Your task to perform on an android device: check the backup settings in the google photos Image 0: 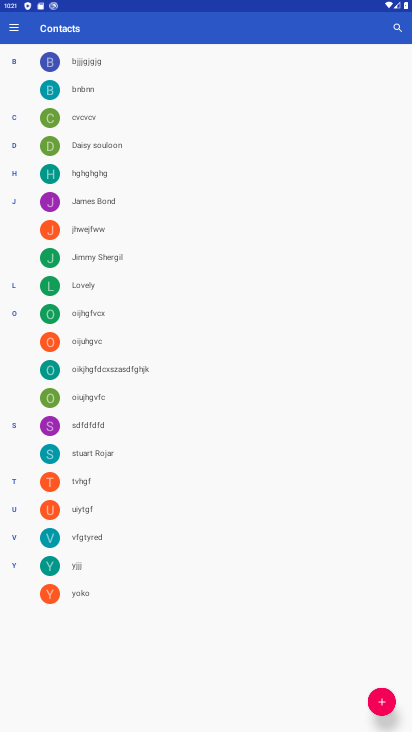
Step 0: press home button
Your task to perform on an android device: check the backup settings in the google photos Image 1: 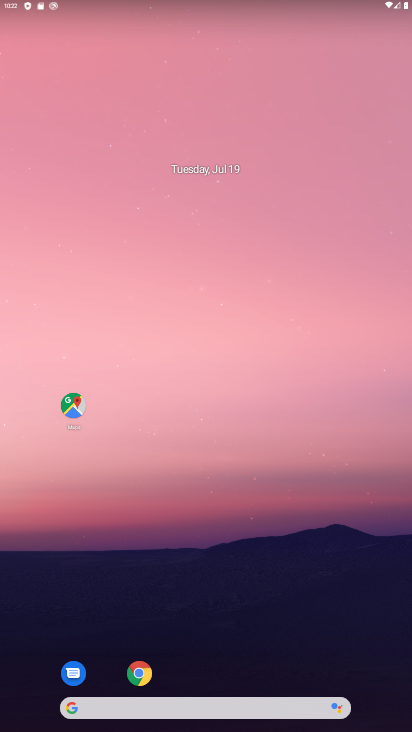
Step 1: drag from (215, 681) to (325, 115)
Your task to perform on an android device: check the backup settings in the google photos Image 2: 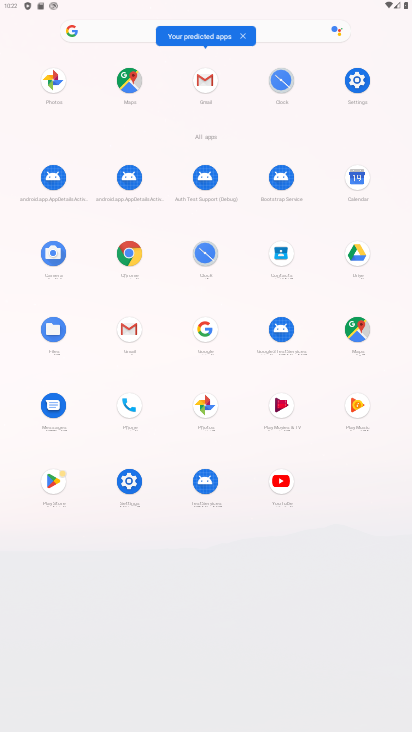
Step 2: click (198, 410)
Your task to perform on an android device: check the backup settings in the google photos Image 3: 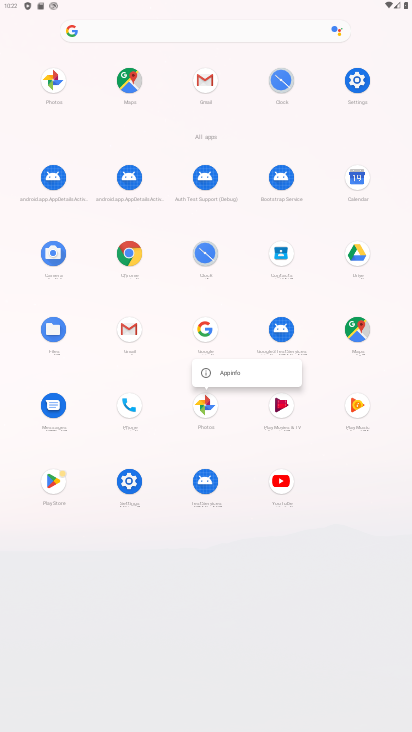
Step 3: click (210, 391)
Your task to perform on an android device: check the backup settings in the google photos Image 4: 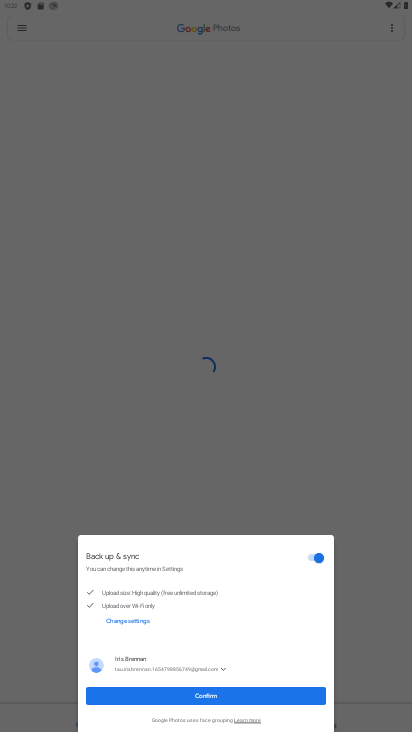
Step 4: click (238, 695)
Your task to perform on an android device: check the backup settings in the google photos Image 5: 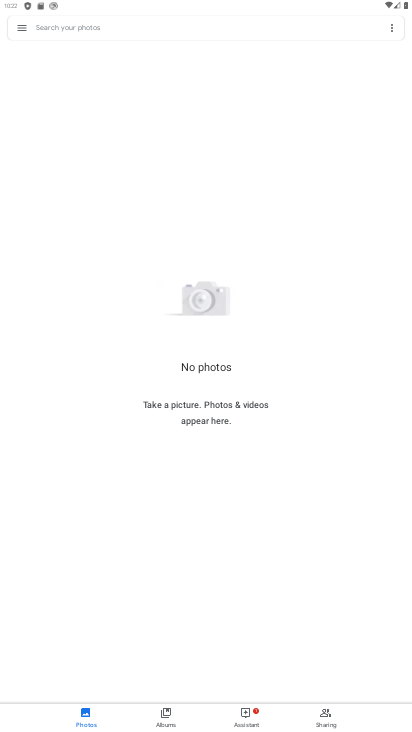
Step 5: click (20, 29)
Your task to perform on an android device: check the backup settings in the google photos Image 6: 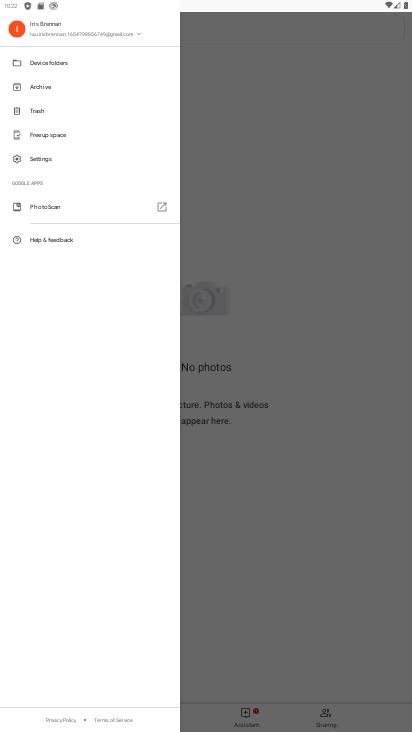
Step 6: click (51, 156)
Your task to perform on an android device: check the backup settings in the google photos Image 7: 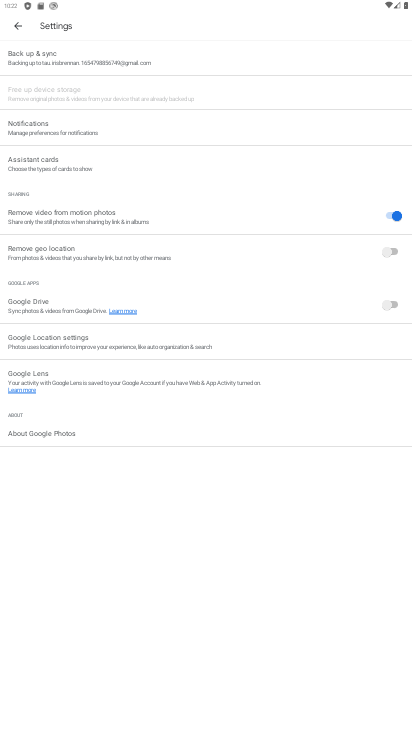
Step 7: click (85, 69)
Your task to perform on an android device: check the backup settings in the google photos Image 8: 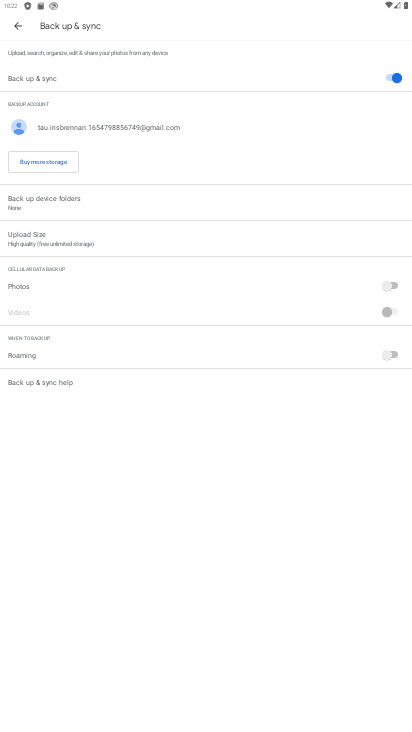
Step 8: task complete